Your task to perform on an android device: delete browsing data in the chrome app Image 0: 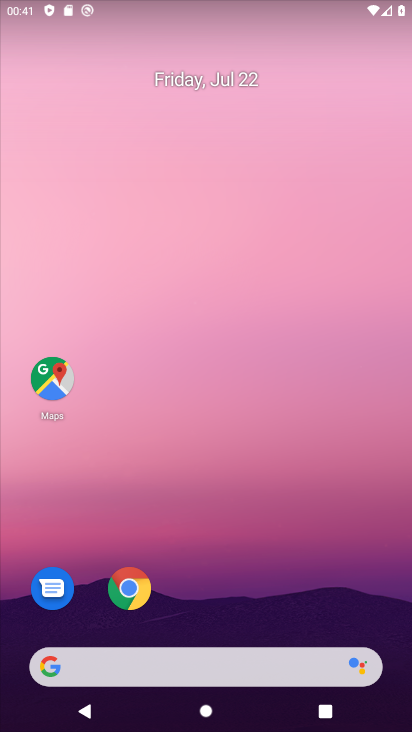
Step 0: click (138, 582)
Your task to perform on an android device: delete browsing data in the chrome app Image 1: 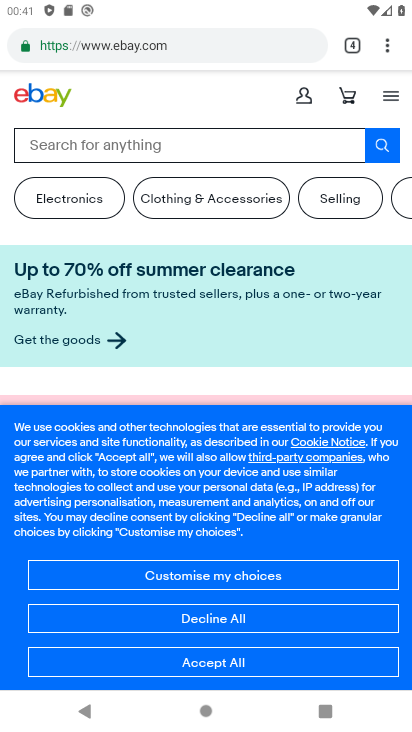
Step 1: drag from (387, 47) to (247, 259)
Your task to perform on an android device: delete browsing data in the chrome app Image 2: 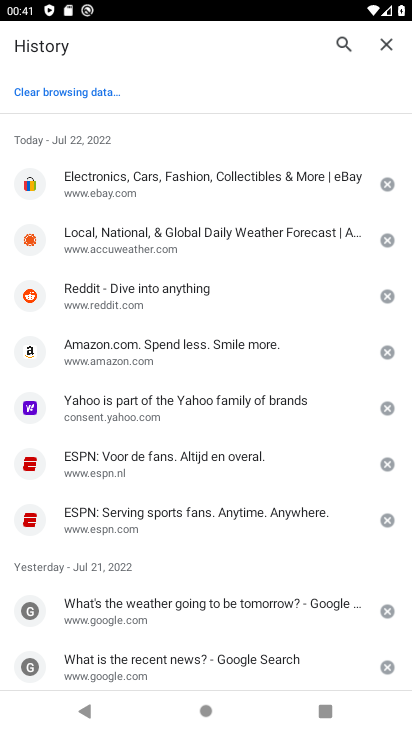
Step 2: click (80, 87)
Your task to perform on an android device: delete browsing data in the chrome app Image 3: 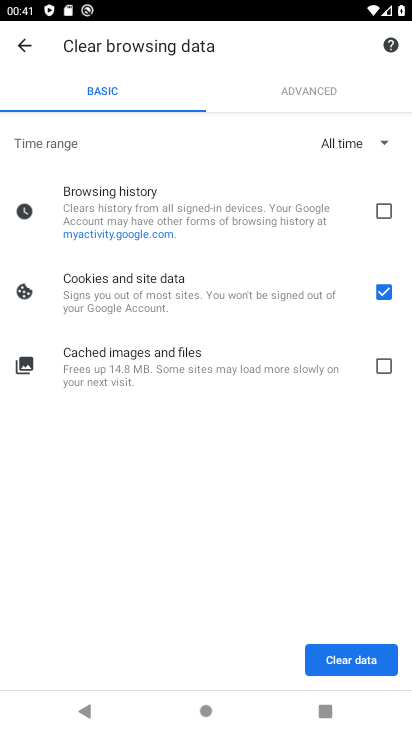
Step 3: click (373, 218)
Your task to perform on an android device: delete browsing data in the chrome app Image 4: 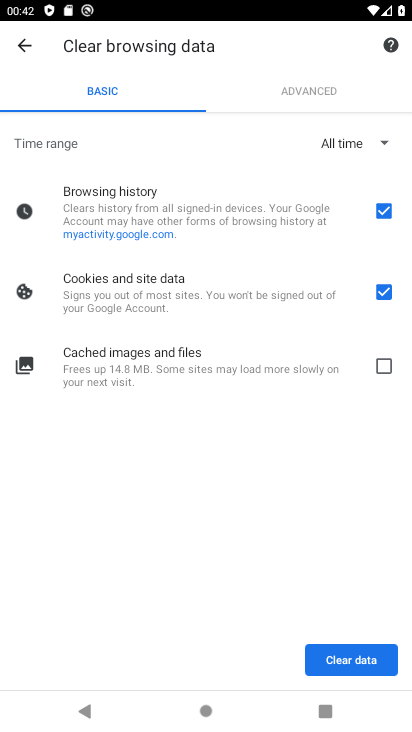
Step 4: click (371, 373)
Your task to perform on an android device: delete browsing data in the chrome app Image 5: 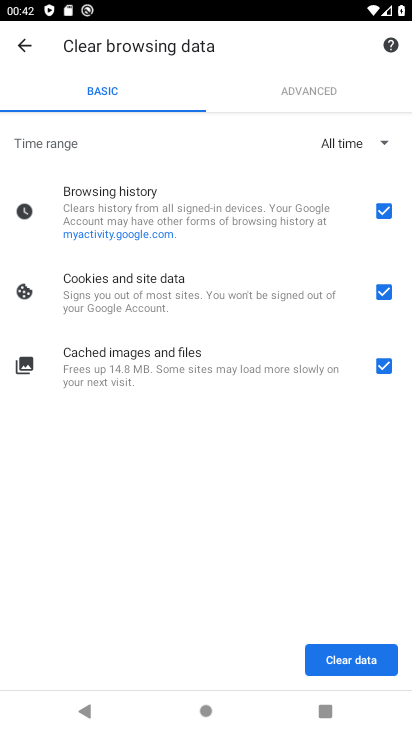
Step 5: click (332, 669)
Your task to perform on an android device: delete browsing data in the chrome app Image 6: 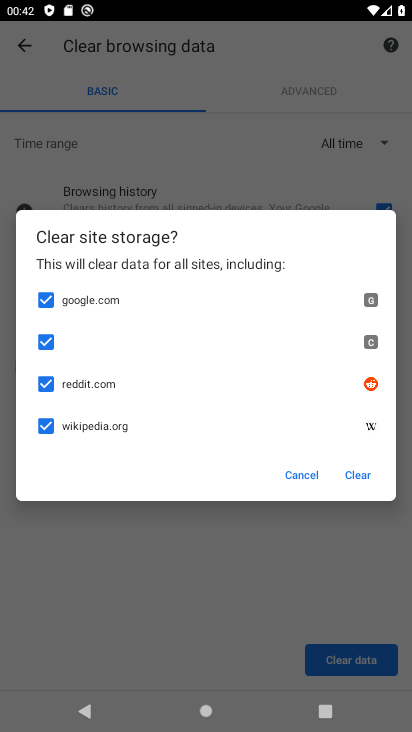
Step 6: click (362, 475)
Your task to perform on an android device: delete browsing data in the chrome app Image 7: 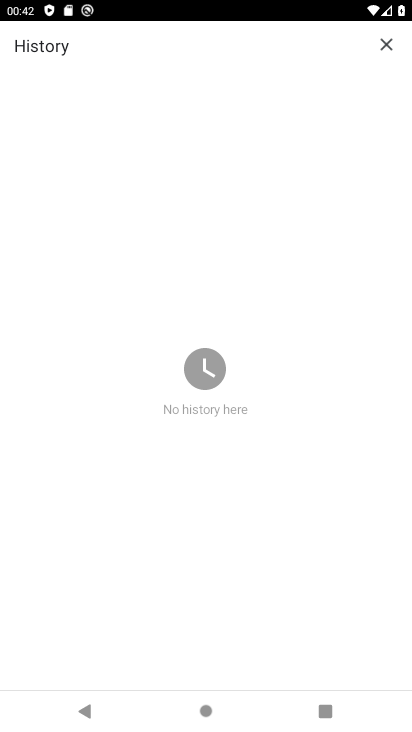
Step 7: task complete